Your task to perform on an android device: change the upload size in google photos Image 0: 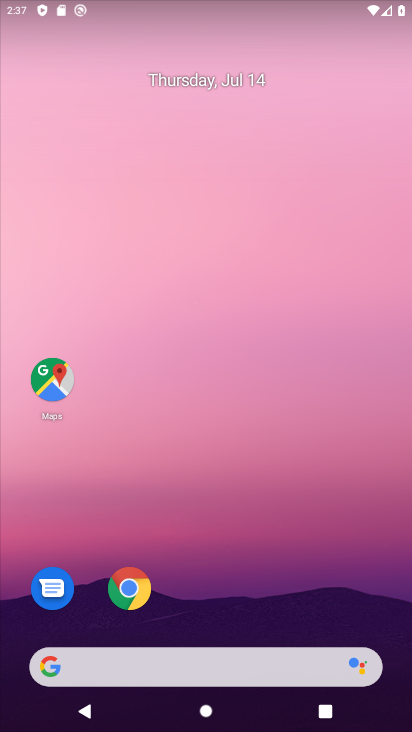
Step 0: drag from (214, 627) to (209, 79)
Your task to perform on an android device: change the upload size in google photos Image 1: 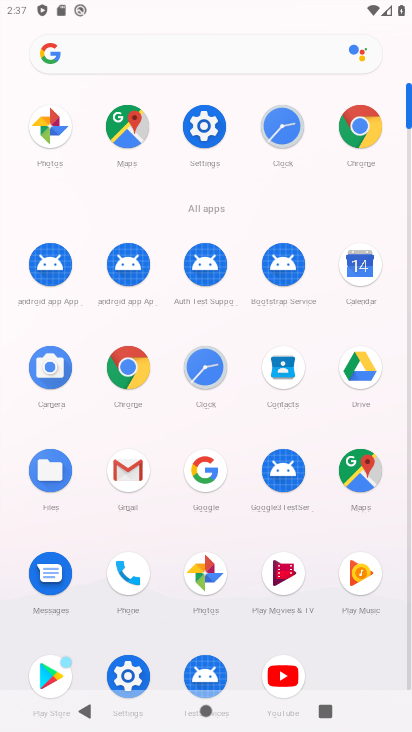
Step 1: click (208, 566)
Your task to perform on an android device: change the upload size in google photos Image 2: 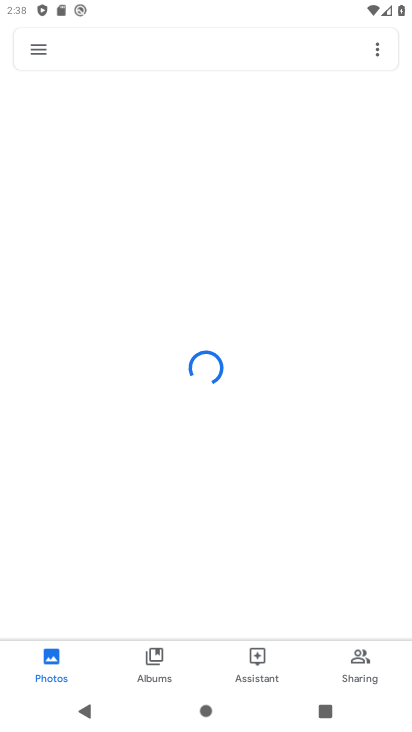
Step 2: click (47, 51)
Your task to perform on an android device: change the upload size in google photos Image 3: 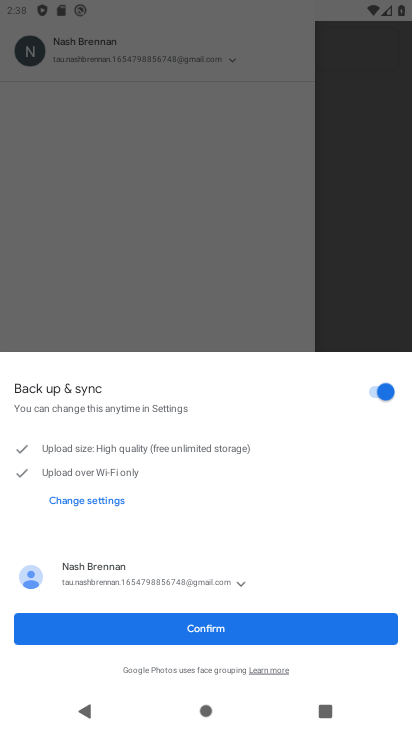
Step 3: click (138, 622)
Your task to perform on an android device: change the upload size in google photos Image 4: 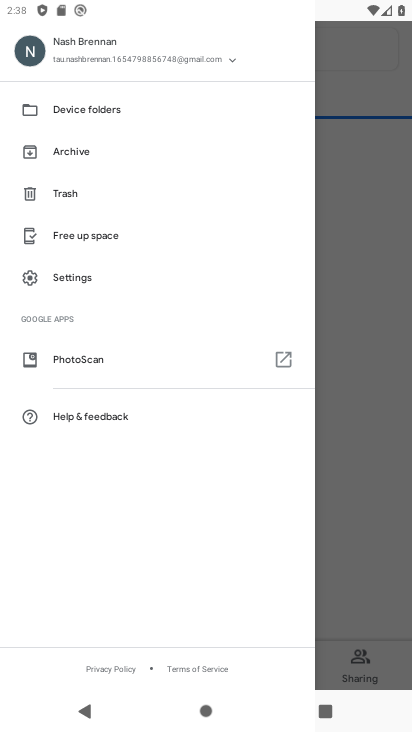
Step 4: click (82, 281)
Your task to perform on an android device: change the upload size in google photos Image 5: 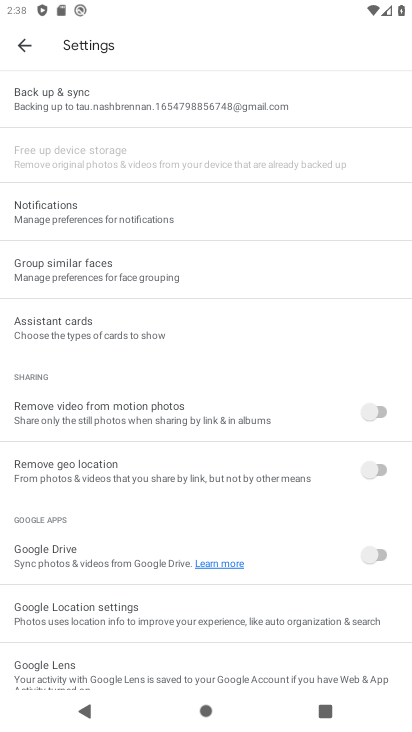
Step 5: drag from (126, 495) to (142, 552)
Your task to perform on an android device: change the upload size in google photos Image 6: 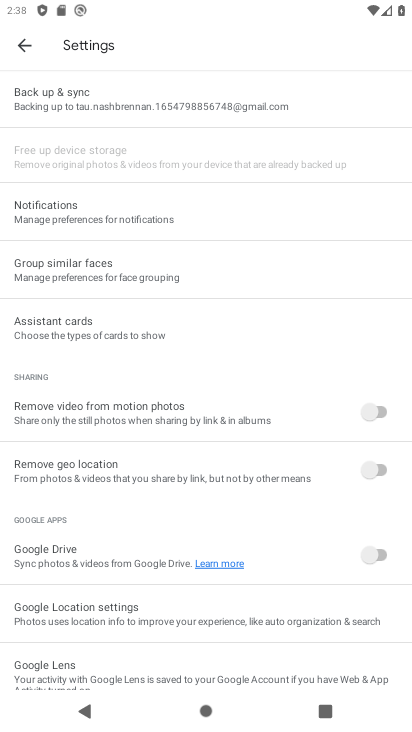
Step 6: click (74, 95)
Your task to perform on an android device: change the upload size in google photos Image 7: 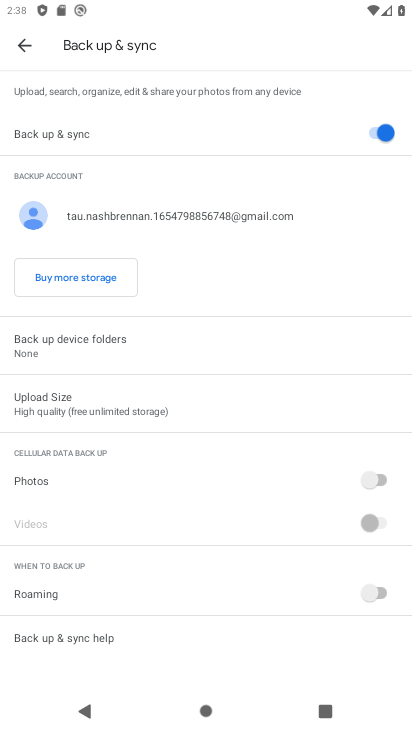
Step 7: click (80, 398)
Your task to perform on an android device: change the upload size in google photos Image 8: 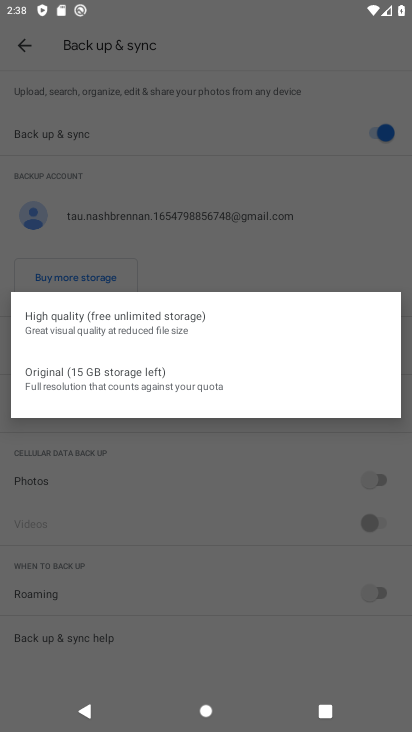
Step 8: click (83, 381)
Your task to perform on an android device: change the upload size in google photos Image 9: 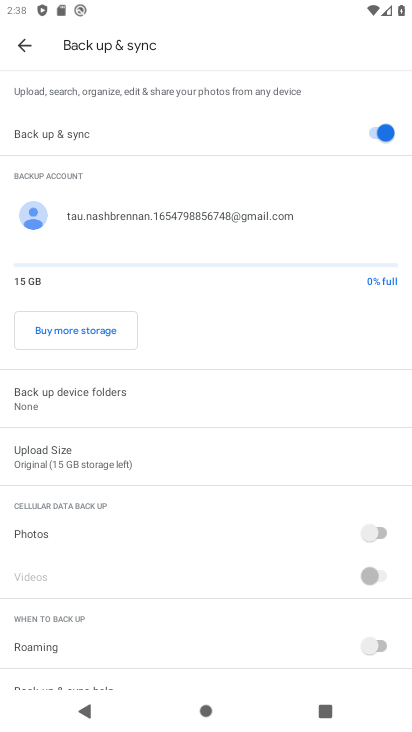
Step 9: task complete